Your task to perform on an android device: turn notification dots off Image 0: 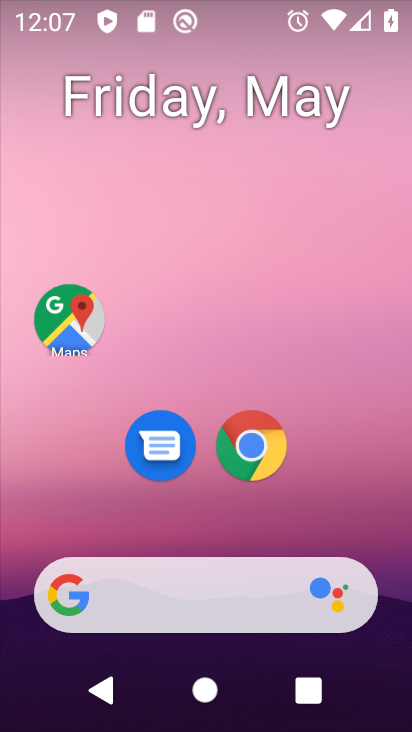
Step 0: drag from (382, 559) to (389, 54)
Your task to perform on an android device: turn notification dots off Image 1: 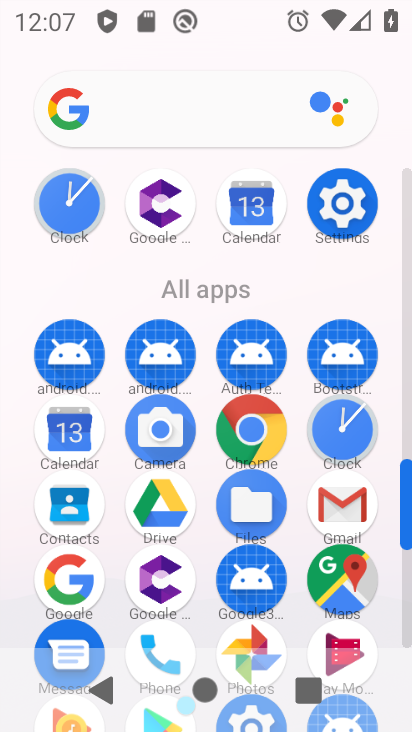
Step 1: click (353, 206)
Your task to perform on an android device: turn notification dots off Image 2: 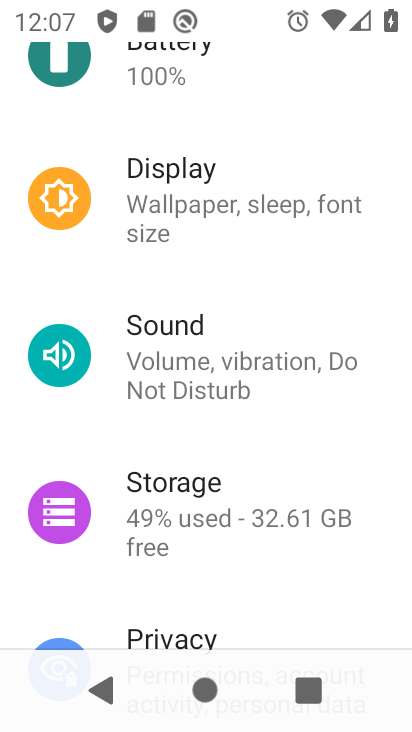
Step 2: drag from (362, 271) to (301, 572)
Your task to perform on an android device: turn notification dots off Image 3: 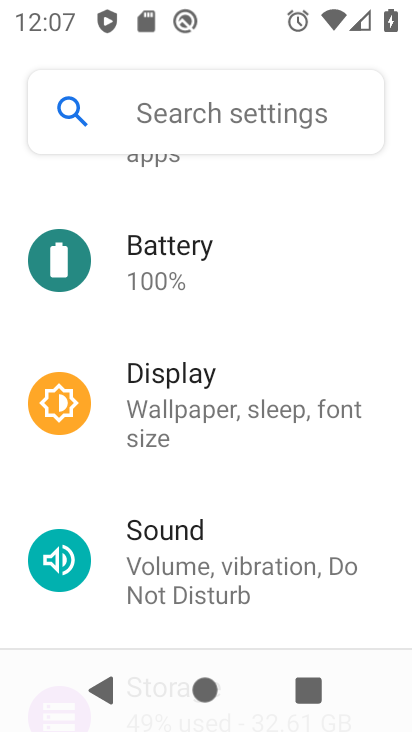
Step 3: drag from (322, 294) to (305, 588)
Your task to perform on an android device: turn notification dots off Image 4: 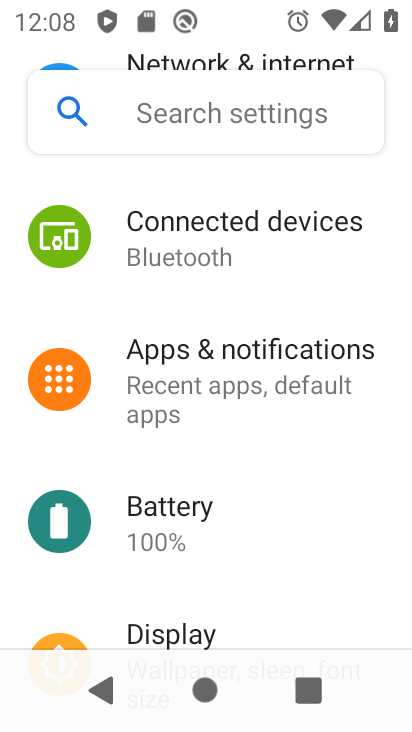
Step 4: click (255, 368)
Your task to perform on an android device: turn notification dots off Image 5: 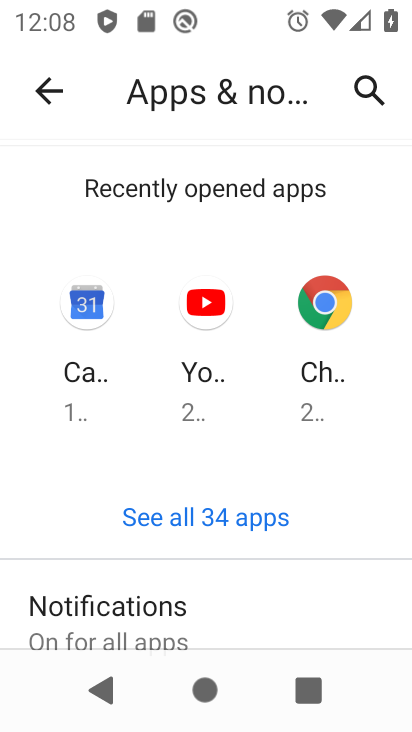
Step 5: drag from (207, 525) to (229, 142)
Your task to perform on an android device: turn notification dots off Image 6: 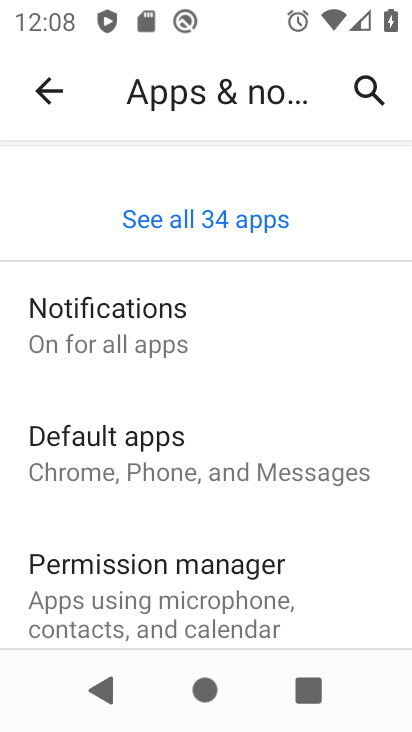
Step 6: click (113, 334)
Your task to perform on an android device: turn notification dots off Image 7: 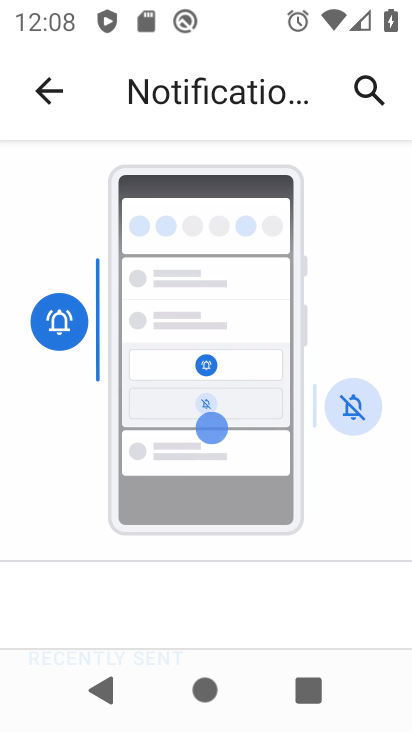
Step 7: drag from (241, 566) to (259, 219)
Your task to perform on an android device: turn notification dots off Image 8: 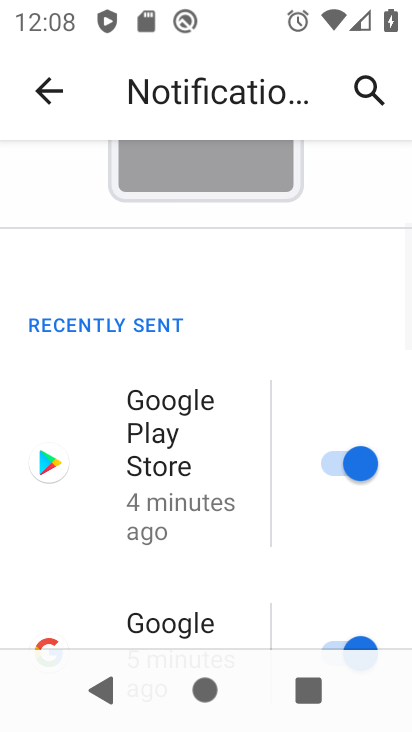
Step 8: drag from (241, 532) to (243, 119)
Your task to perform on an android device: turn notification dots off Image 9: 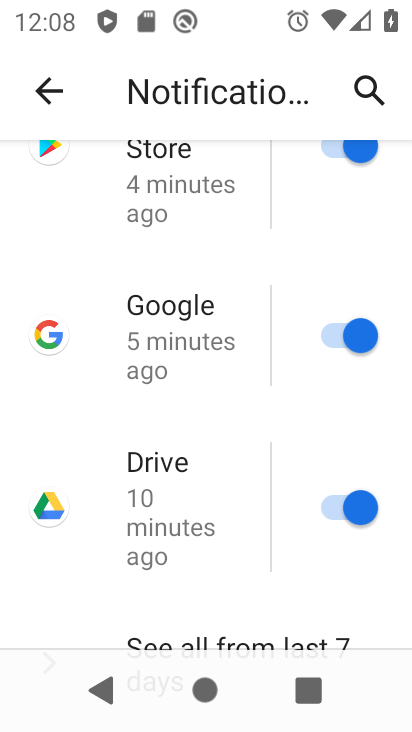
Step 9: drag from (224, 496) to (212, 185)
Your task to perform on an android device: turn notification dots off Image 10: 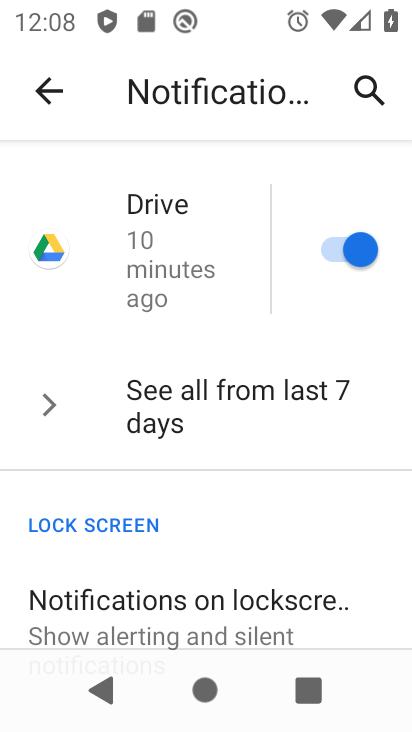
Step 10: drag from (193, 526) to (204, 268)
Your task to perform on an android device: turn notification dots off Image 11: 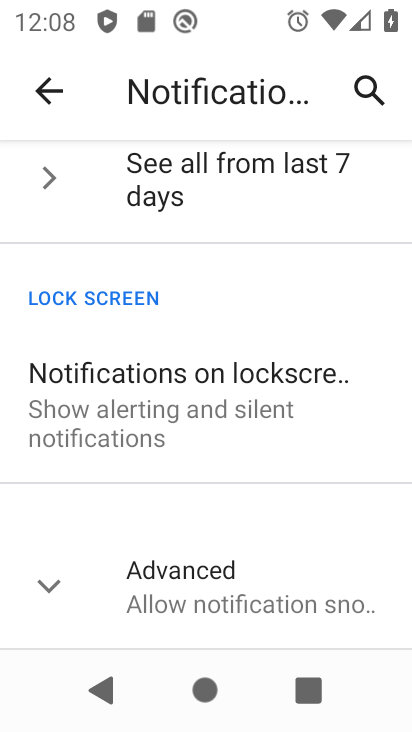
Step 11: click (48, 599)
Your task to perform on an android device: turn notification dots off Image 12: 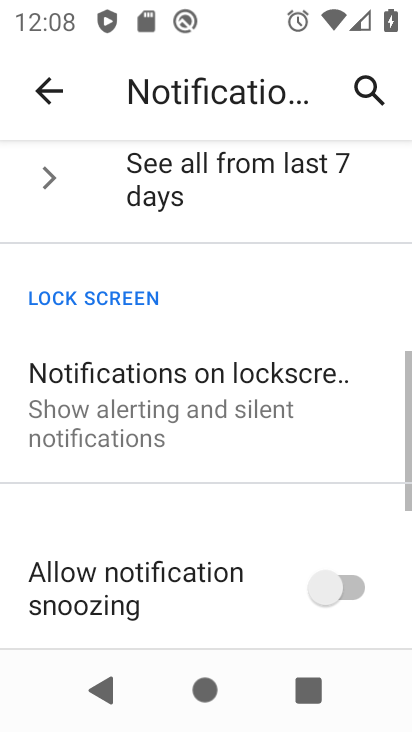
Step 12: drag from (188, 596) to (214, 224)
Your task to perform on an android device: turn notification dots off Image 13: 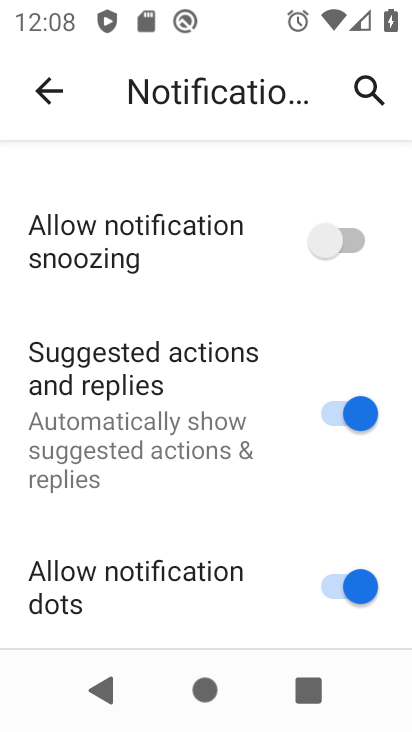
Step 13: click (340, 580)
Your task to perform on an android device: turn notification dots off Image 14: 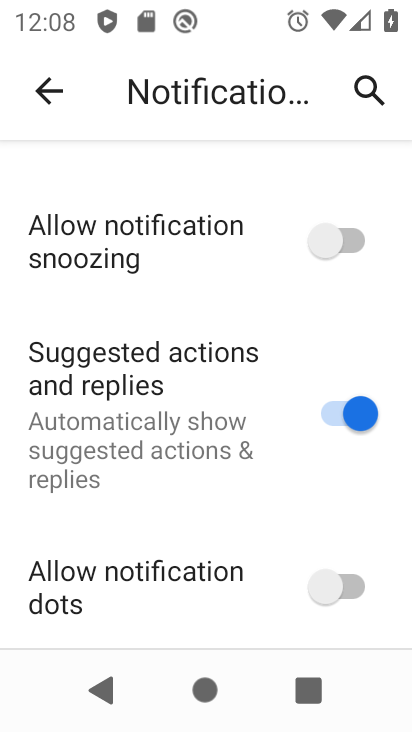
Step 14: task complete